Your task to perform on an android device: Go to privacy settings Image 0: 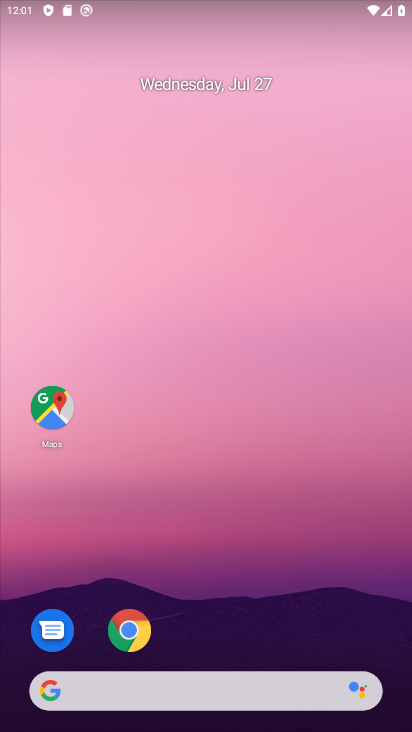
Step 0: drag from (268, 605) to (222, 203)
Your task to perform on an android device: Go to privacy settings Image 1: 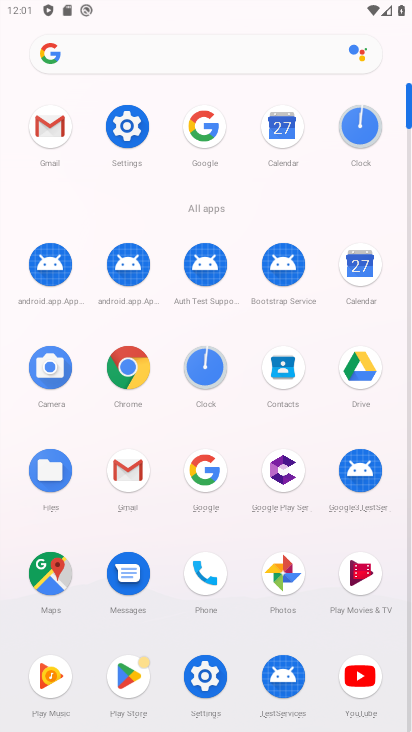
Step 1: click (207, 691)
Your task to perform on an android device: Go to privacy settings Image 2: 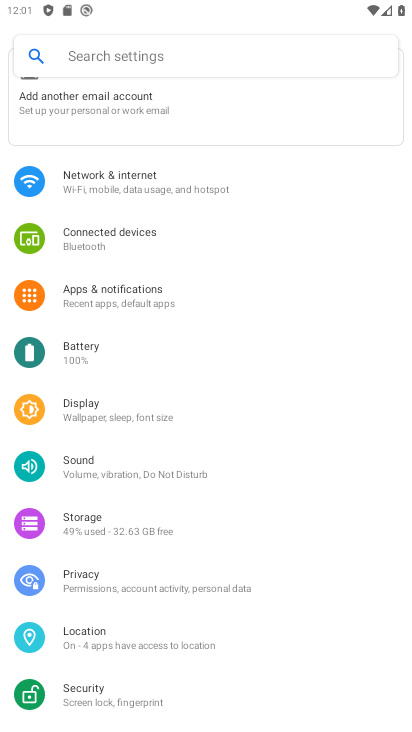
Step 2: click (126, 581)
Your task to perform on an android device: Go to privacy settings Image 3: 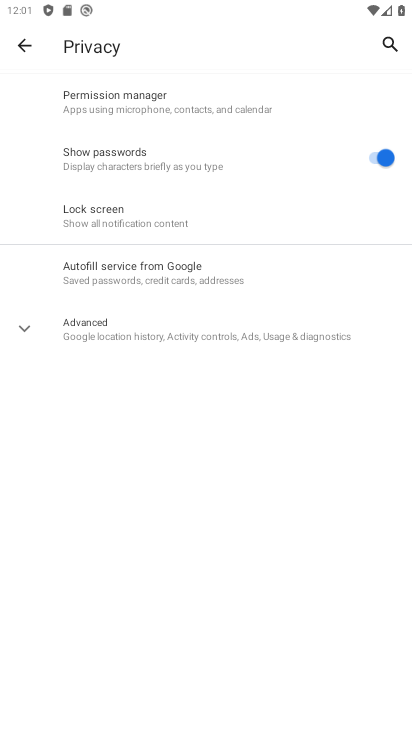
Step 3: task complete